Your task to perform on an android device: check out phone information Image 0: 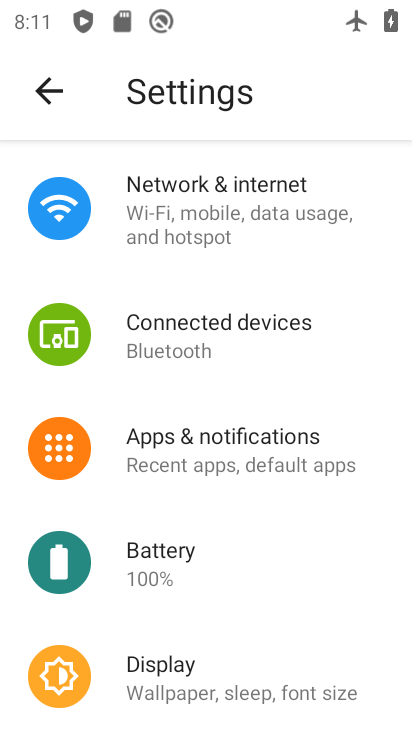
Step 0: drag from (202, 610) to (226, 278)
Your task to perform on an android device: check out phone information Image 1: 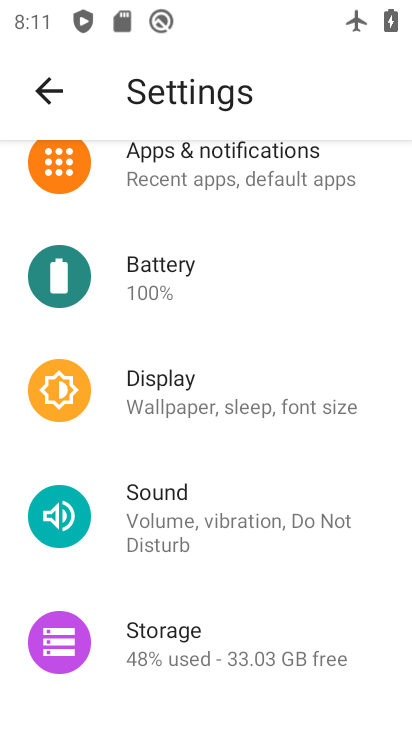
Step 1: drag from (187, 655) to (189, 316)
Your task to perform on an android device: check out phone information Image 2: 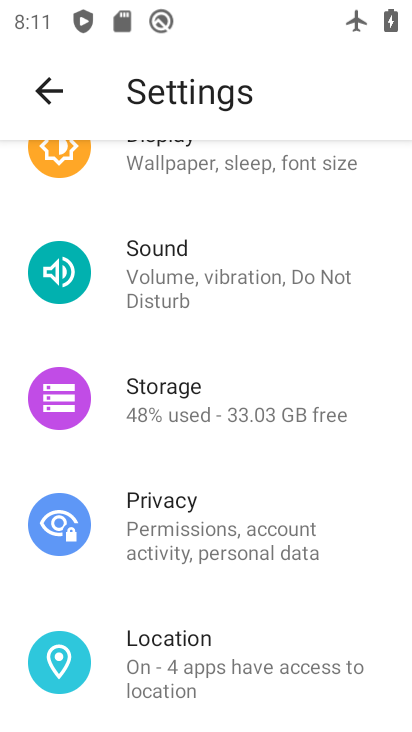
Step 2: drag from (174, 677) to (182, 330)
Your task to perform on an android device: check out phone information Image 3: 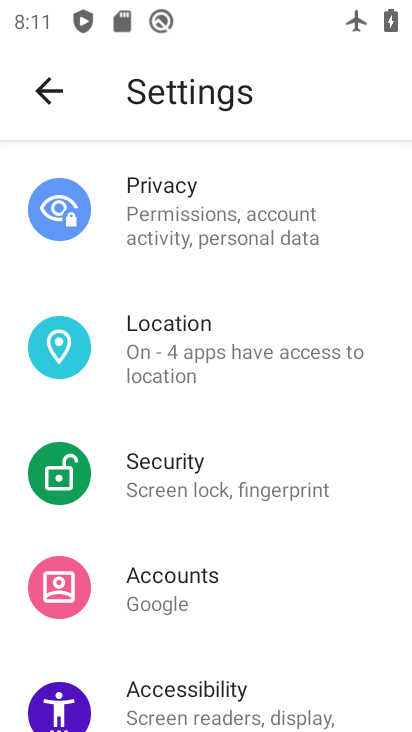
Step 3: drag from (184, 649) to (187, 315)
Your task to perform on an android device: check out phone information Image 4: 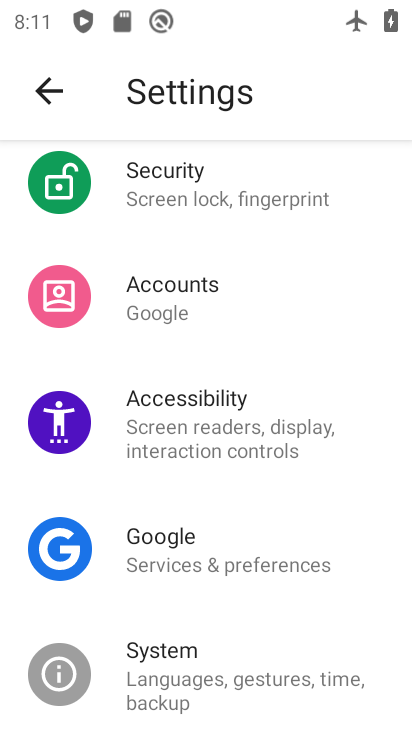
Step 4: drag from (258, 418) to (262, 202)
Your task to perform on an android device: check out phone information Image 5: 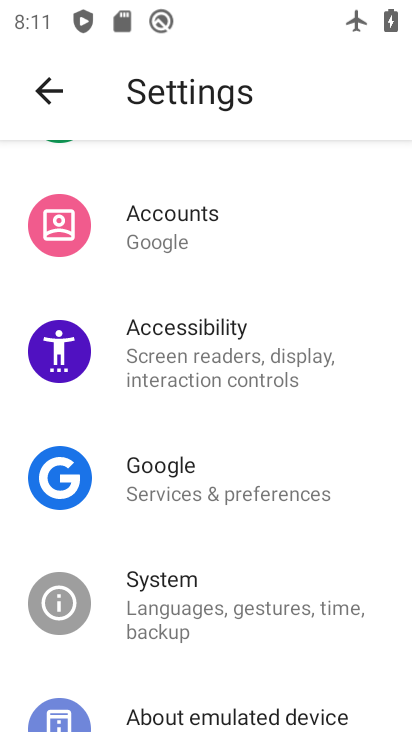
Step 5: drag from (293, 671) to (296, 187)
Your task to perform on an android device: check out phone information Image 6: 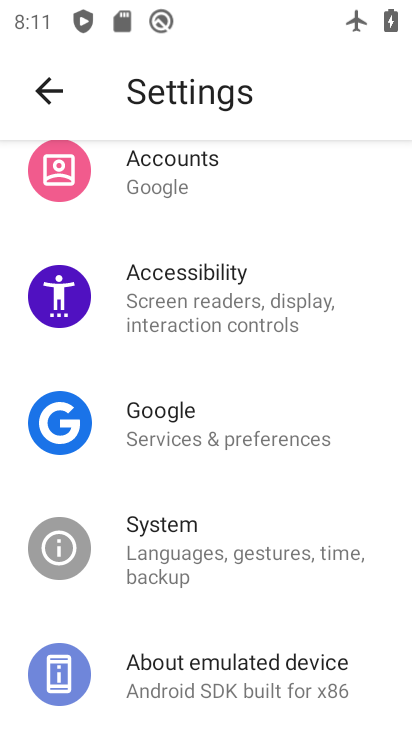
Step 6: click (200, 669)
Your task to perform on an android device: check out phone information Image 7: 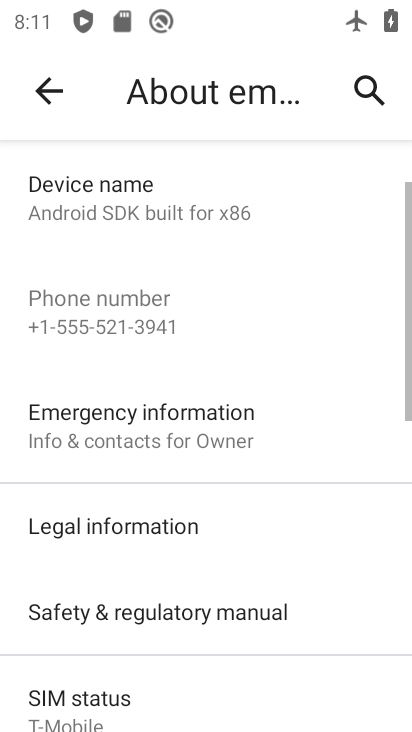
Step 7: task complete